Your task to perform on an android device: Search for Italian restaurants on Maps Image 0: 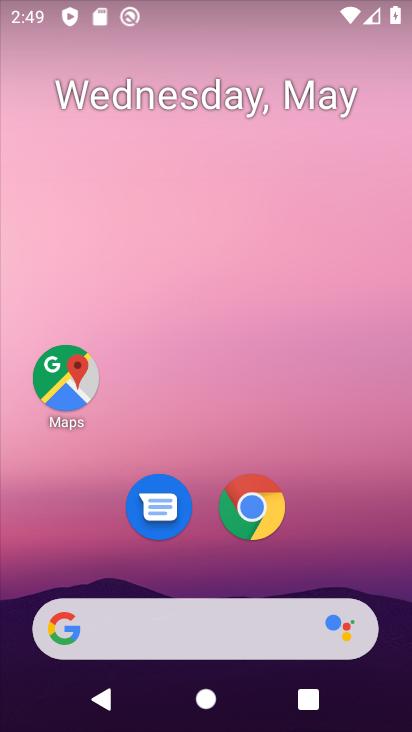
Step 0: click (66, 380)
Your task to perform on an android device: Search for Italian restaurants on Maps Image 1: 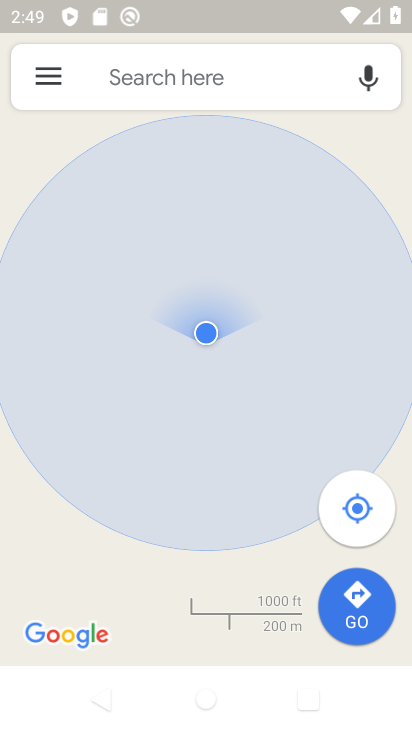
Step 1: click (143, 75)
Your task to perform on an android device: Search for Italian restaurants on Maps Image 2: 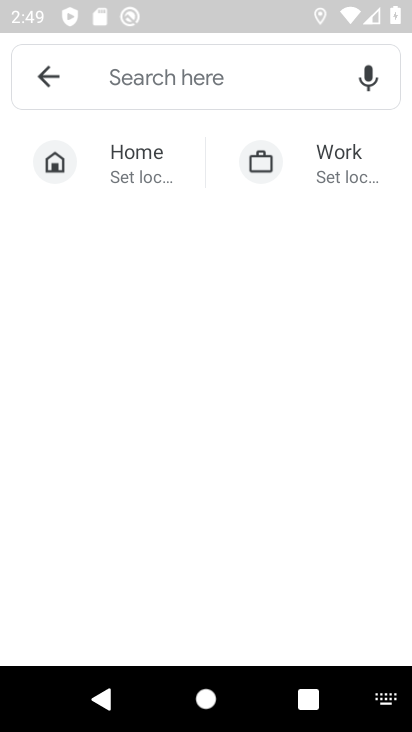
Step 2: type "Italian restaurants"
Your task to perform on an android device: Search for Italian restaurants on Maps Image 3: 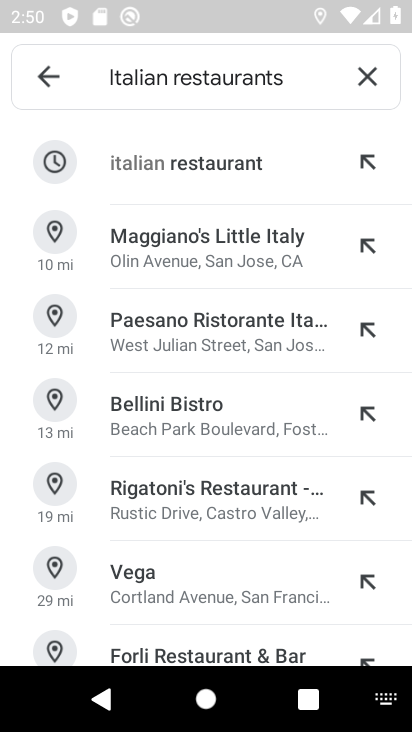
Step 3: click (165, 172)
Your task to perform on an android device: Search for Italian restaurants on Maps Image 4: 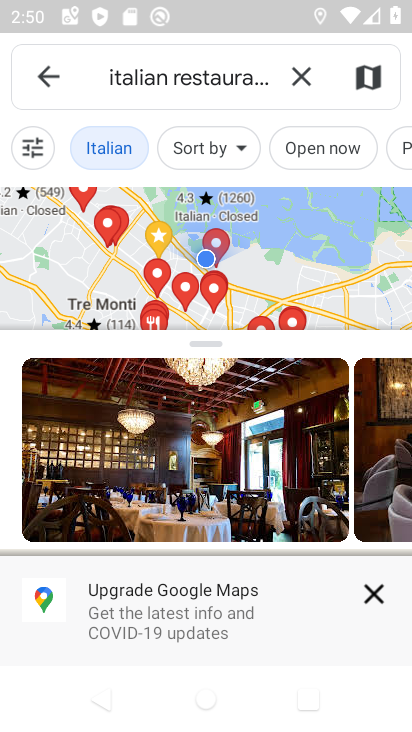
Step 4: click (371, 595)
Your task to perform on an android device: Search for Italian restaurants on Maps Image 5: 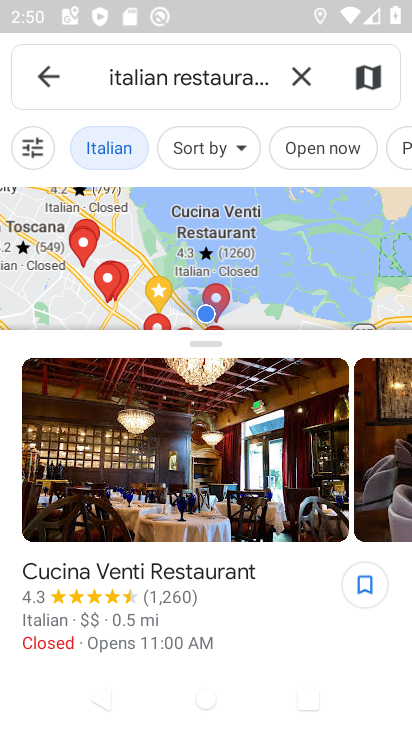
Step 5: task complete